Your task to perform on an android device: Go to Android settings Image 0: 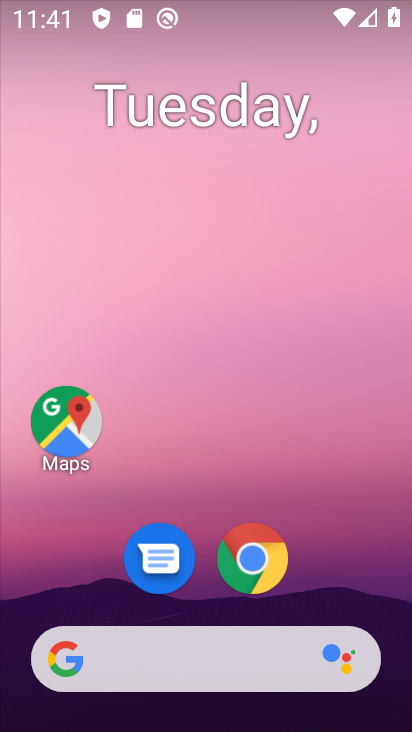
Step 0: drag from (207, 641) to (198, 327)
Your task to perform on an android device: Go to Android settings Image 1: 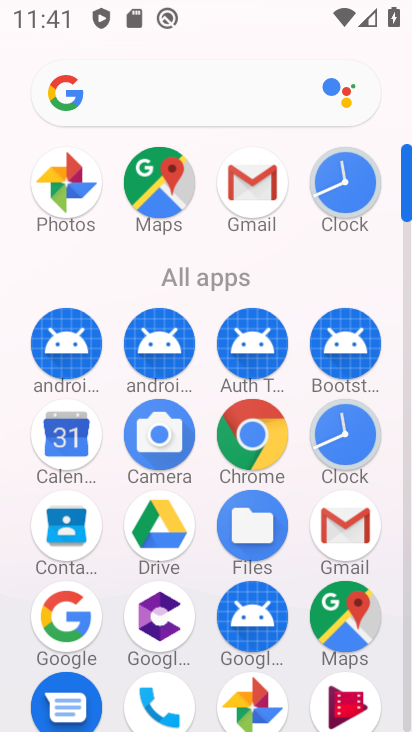
Step 1: drag from (244, 474) to (254, 177)
Your task to perform on an android device: Go to Android settings Image 2: 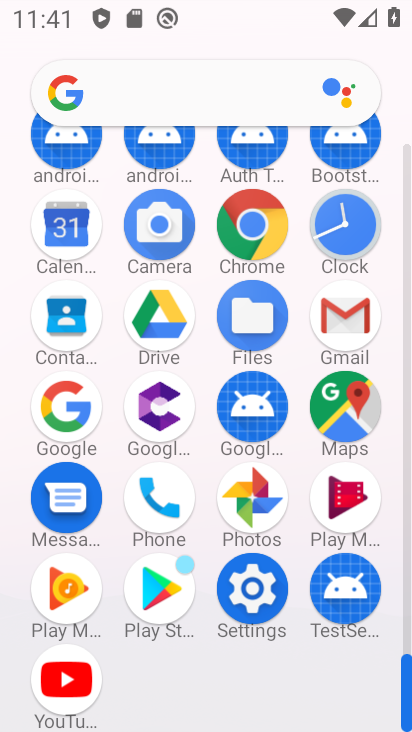
Step 2: click (255, 626)
Your task to perform on an android device: Go to Android settings Image 3: 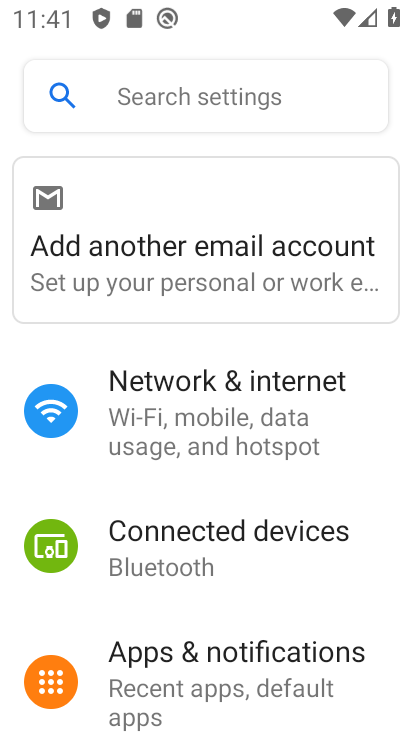
Step 3: drag from (253, 607) to (228, 328)
Your task to perform on an android device: Go to Android settings Image 4: 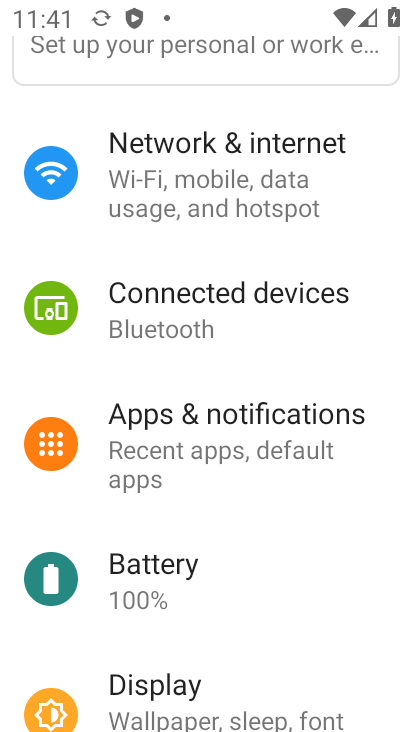
Step 4: drag from (208, 522) to (219, 449)
Your task to perform on an android device: Go to Android settings Image 5: 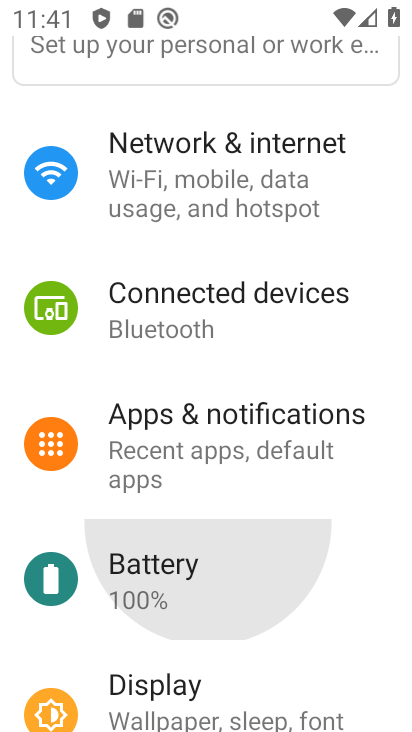
Step 5: drag from (239, 263) to (251, 210)
Your task to perform on an android device: Go to Android settings Image 6: 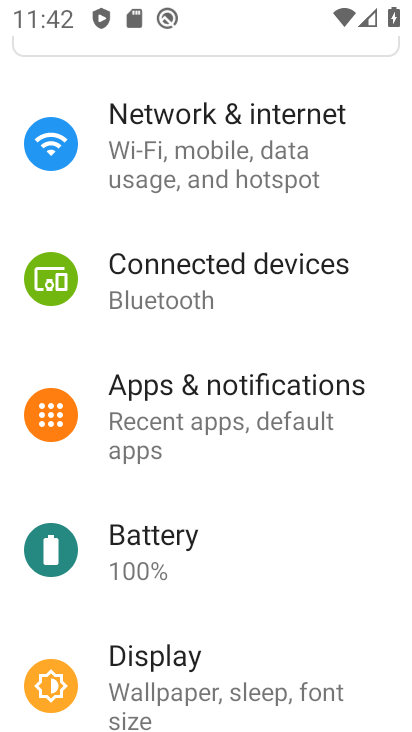
Step 6: drag from (197, 578) to (256, 205)
Your task to perform on an android device: Go to Android settings Image 7: 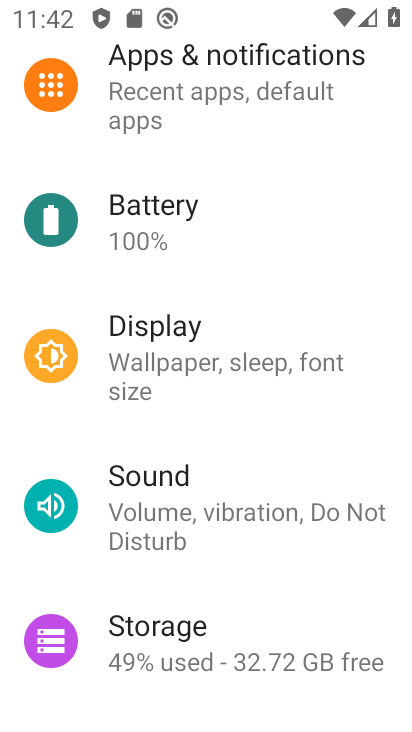
Step 7: drag from (209, 564) to (249, 270)
Your task to perform on an android device: Go to Android settings Image 8: 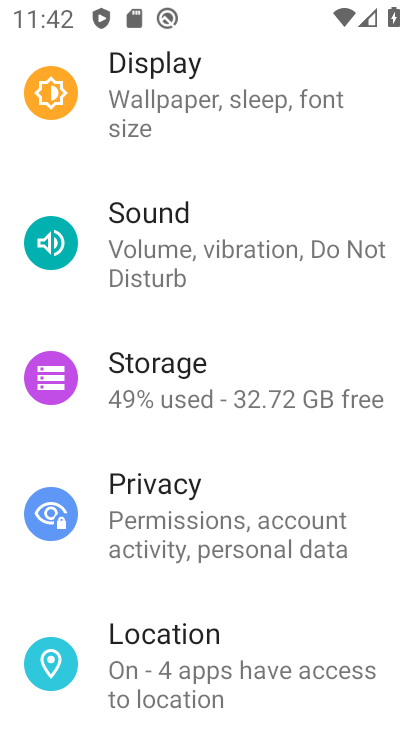
Step 8: drag from (195, 607) to (235, 280)
Your task to perform on an android device: Go to Android settings Image 9: 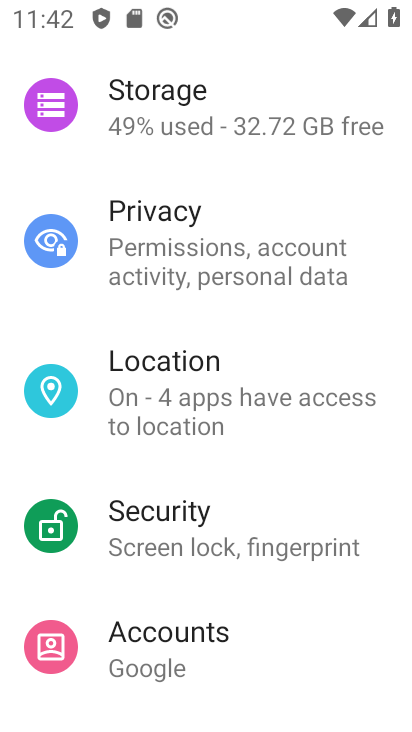
Step 9: drag from (200, 616) to (251, 263)
Your task to perform on an android device: Go to Android settings Image 10: 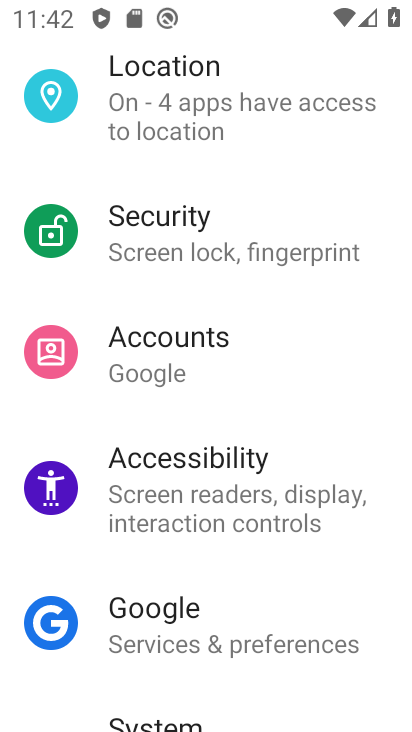
Step 10: drag from (205, 631) to (273, 178)
Your task to perform on an android device: Go to Android settings Image 11: 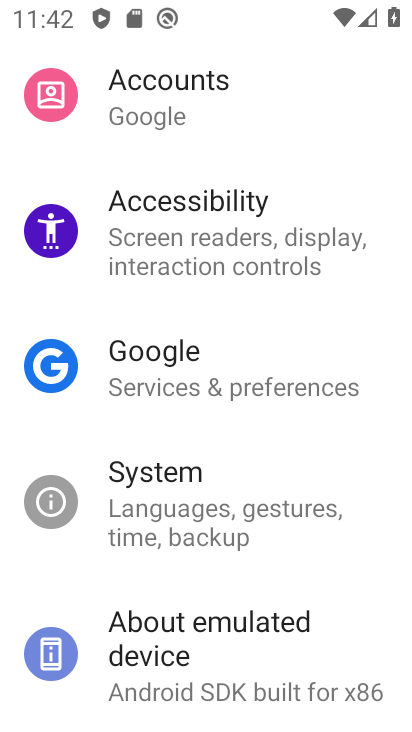
Step 11: drag from (232, 520) to (267, 228)
Your task to perform on an android device: Go to Android settings Image 12: 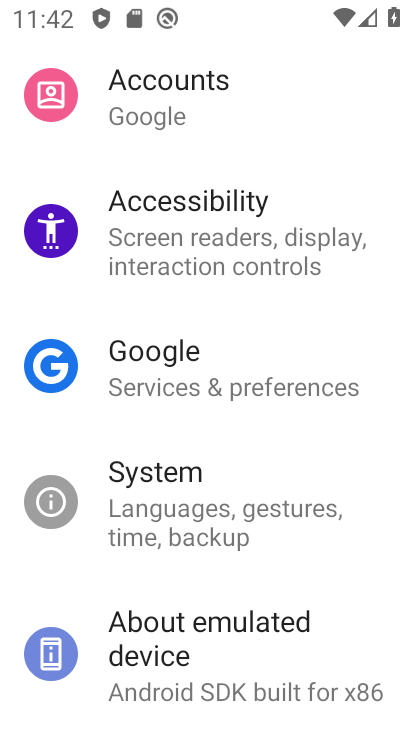
Step 12: click (229, 646)
Your task to perform on an android device: Go to Android settings Image 13: 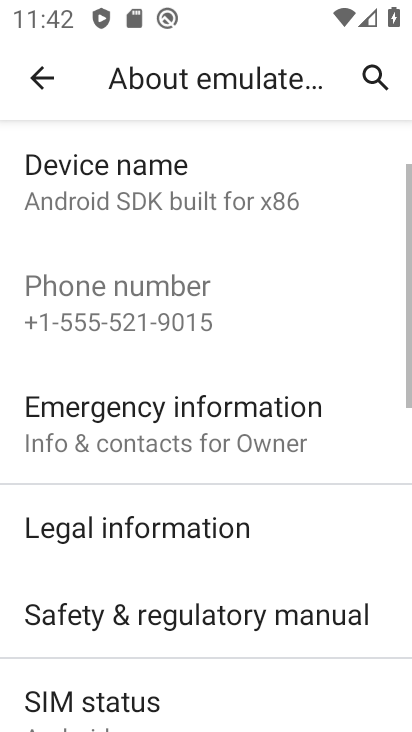
Step 13: task complete